Your task to perform on an android device: What is the news today? Image 0: 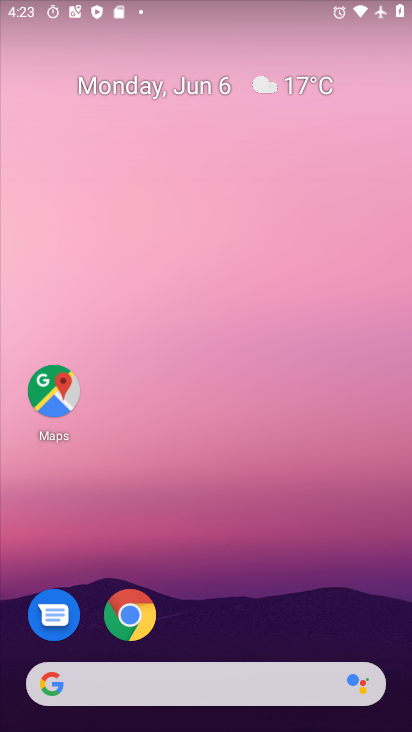
Step 0: click (254, 433)
Your task to perform on an android device: What is the news today? Image 1: 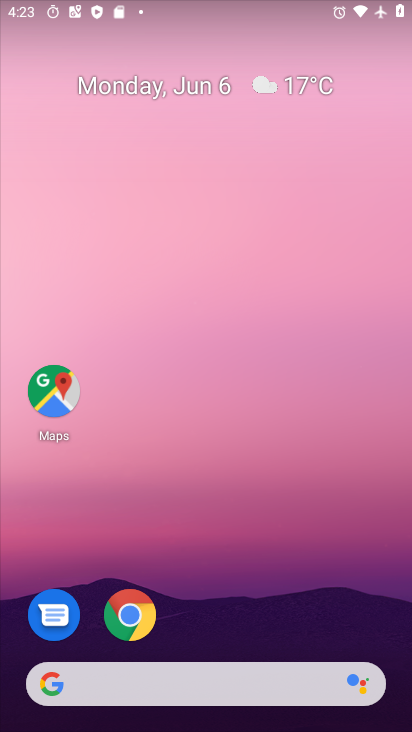
Step 1: drag from (242, 511) to (189, 27)
Your task to perform on an android device: What is the news today? Image 2: 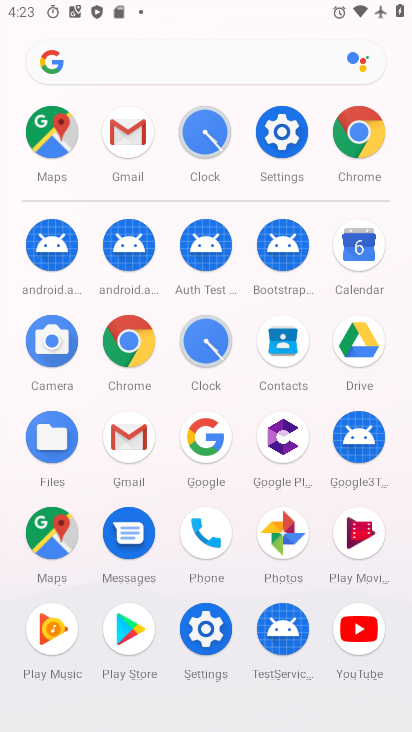
Step 2: drag from (0, 521) to (22, 185)
Your task to perform on an android device: What is the news today? Image 3: 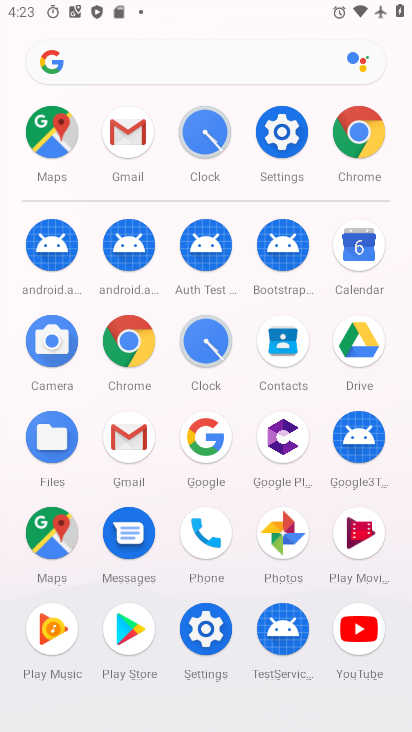
Step 3: drag from (11, 569) to (7, 236)
Your task to perform on an android device: What is the news today? Image 4: 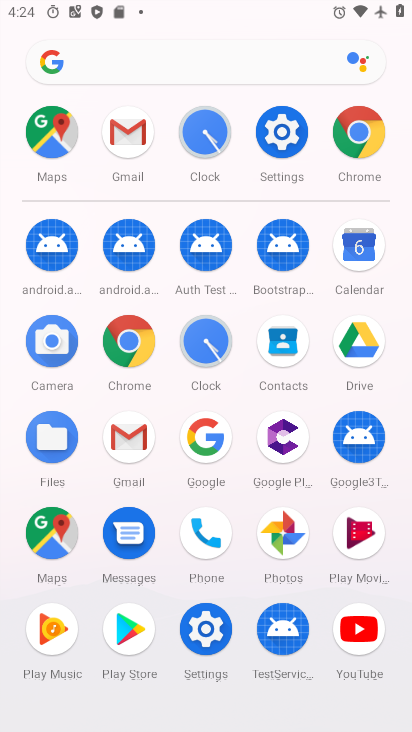
Step 4: click (130, 337)
Your task to perform on an android device: What is the news today? Image 5: 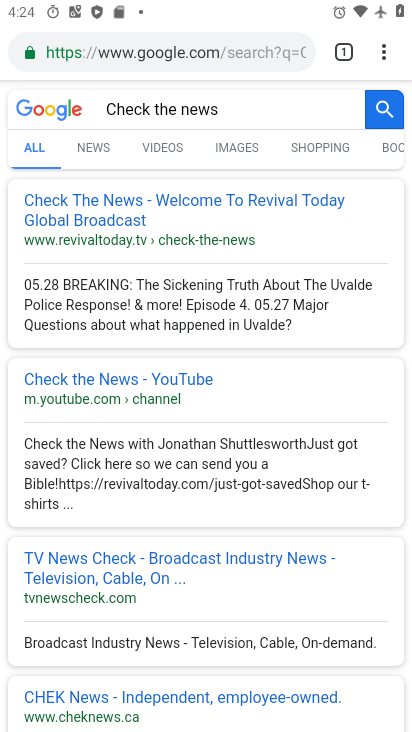
Step 5: click (97, 146)
Your task to perform on an android device: What is the news today? Image 6: 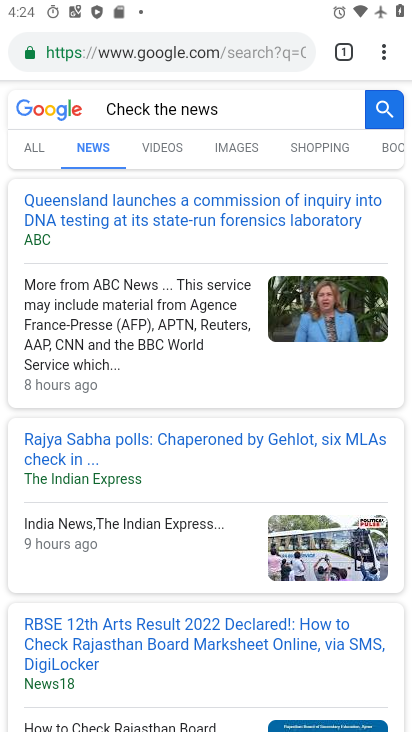
Step 6: task complete